Your task to perform on an android device: open a bookmark in the chrome app Image 0: 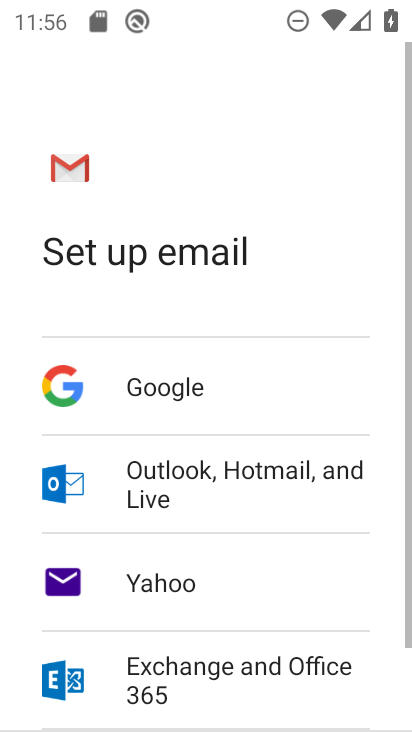
Step 0: press home button
Your task to perform on an android device: open a bookmark in the chrome app Image 1: 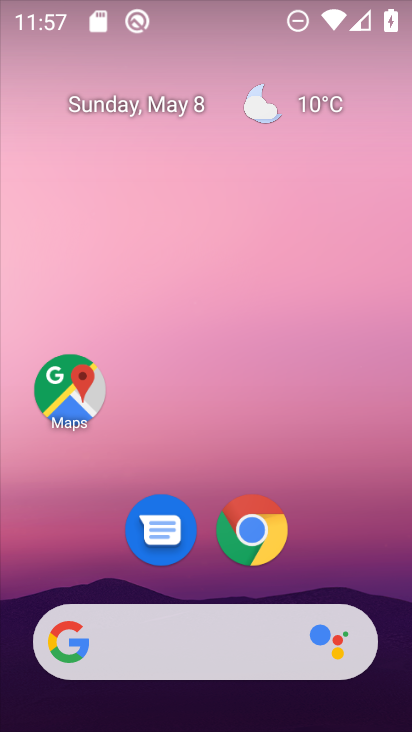
Step 1: click (250, 529)
Your task to perform on an android device: open a bookmark in the chrome app Image 2: 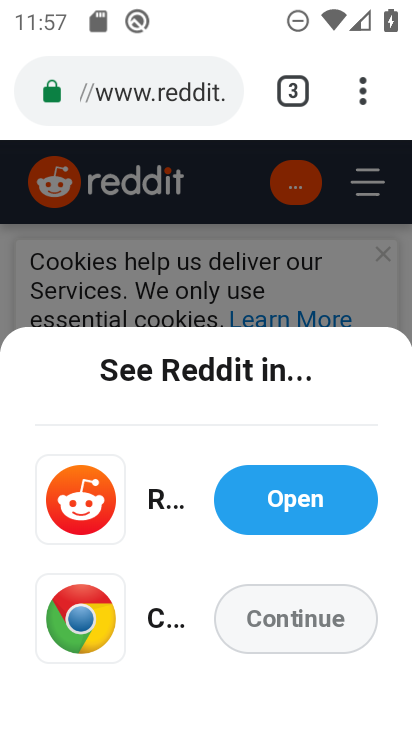
Step 2: click (350, 81)
Your task to perform on an android device: open a bookmark in the chrome app Image 3: 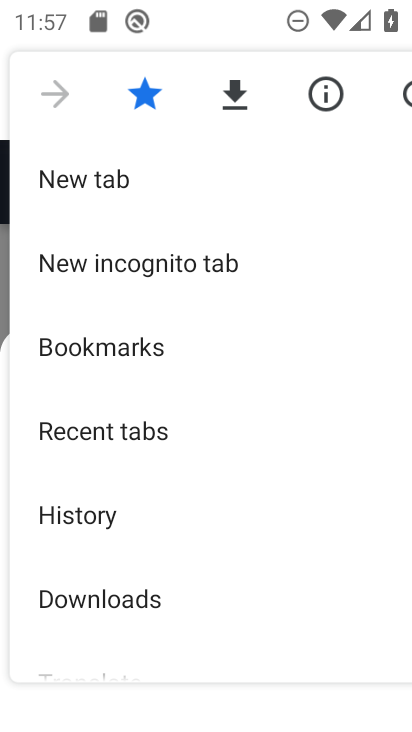
Step 3: click (199, 331)
Your task to perform on an android device: open a bookmark in the chrome app Image 4: 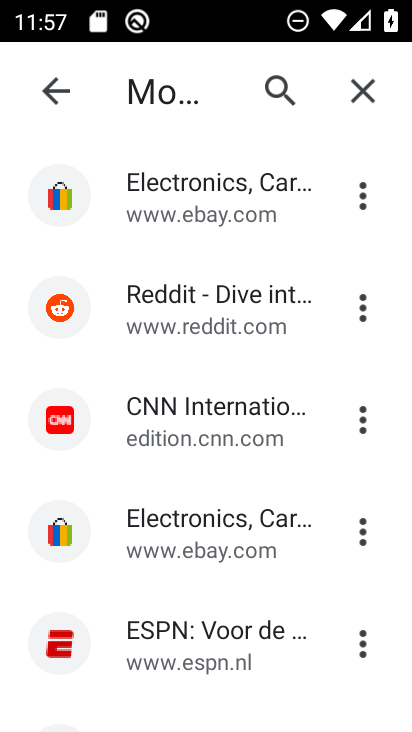
Step 4: click (159, 413)
Your task to perform on an android device: open a bookmark in the chrome app Image 5: 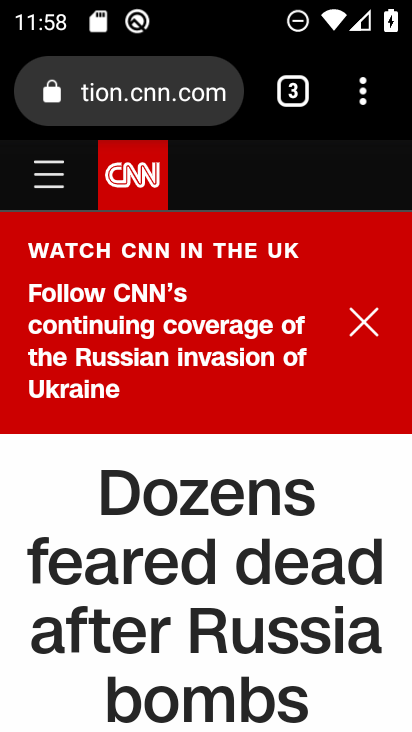
Step 5: task complete